Your task to perform on an android device: allow cookies in the chrome app Image 0: 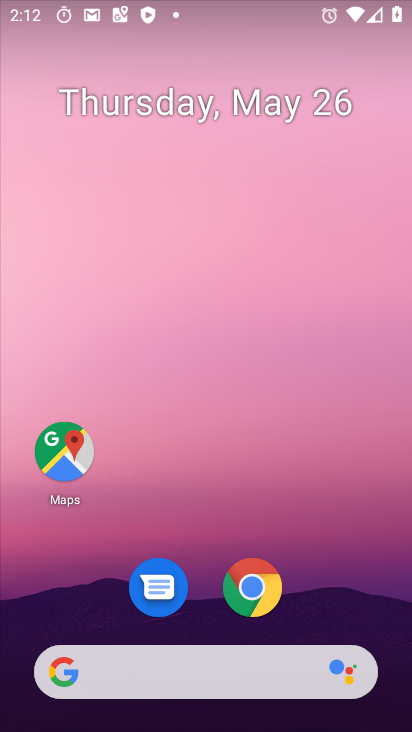
Step 0: drag from (231, 701) to (264, 152)
Your task to perform on an android device: allow cookies in the chrome app Image 1: 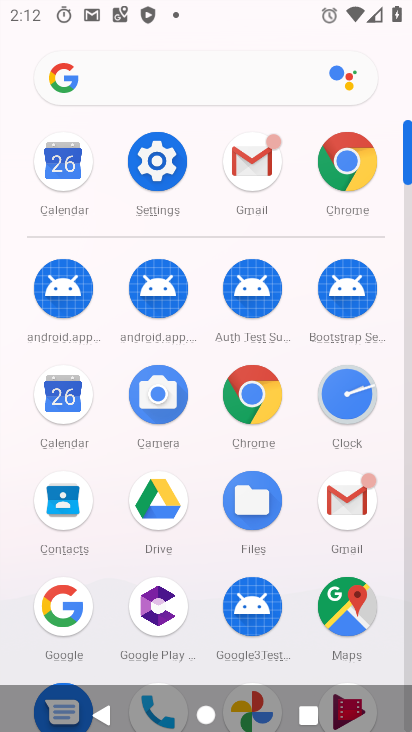
Step 1: click (324, 163)
Your task to perform on an android device: allow cookies in the chrome app Image 2: 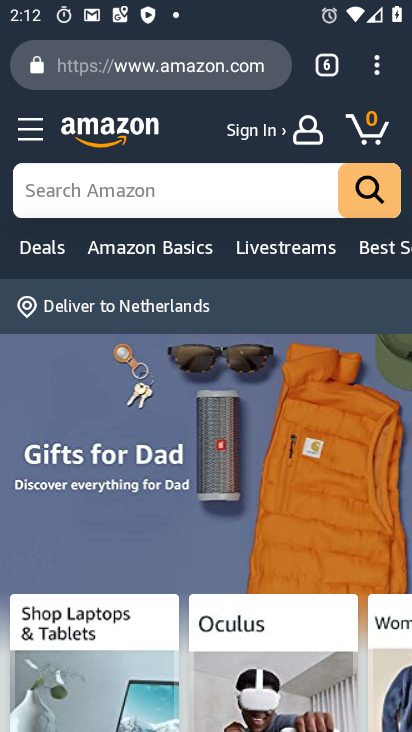
Step 2: click (375, 75)
Your task to perform on an android device: allow cookies in the chrome app Image 3: 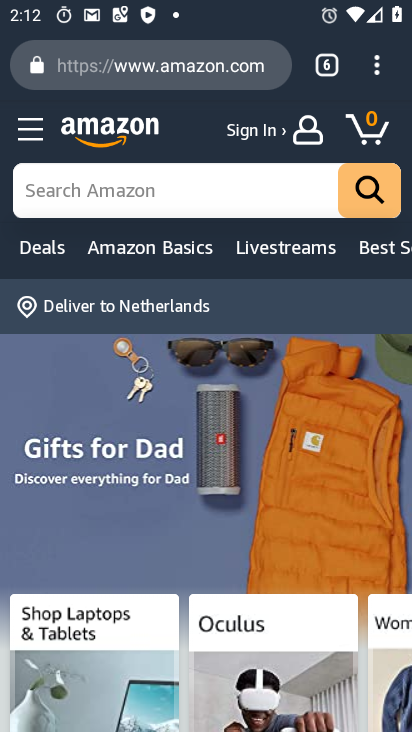
Step 3: click (373, 65)
Your task to perform on an android device: allow cookies in the chrome app Image 4: 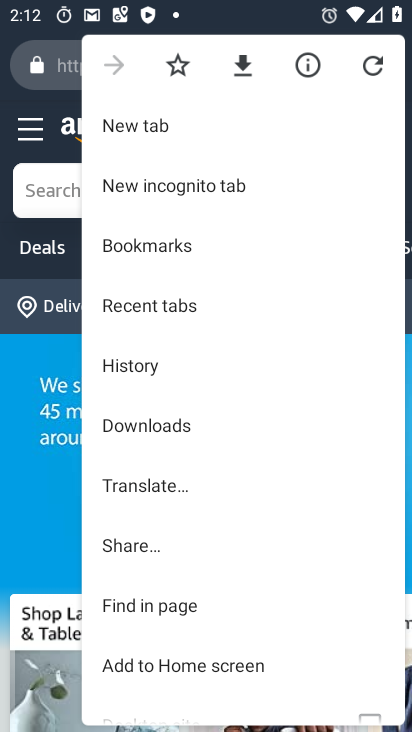
Step 4: drag from (199, 691) to (255, 474)
Your task to perform on an android device: allow cookies in the chrome app Image 5: 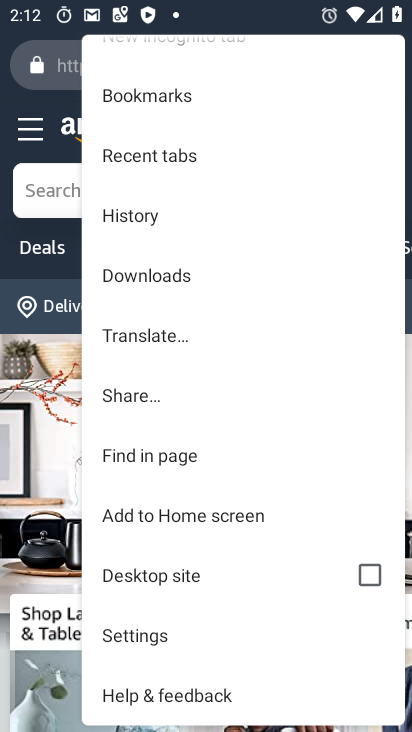
Step 5: click (153, 628)
Your task to perform on an android device: allow cookies in the chrome app Image 6: 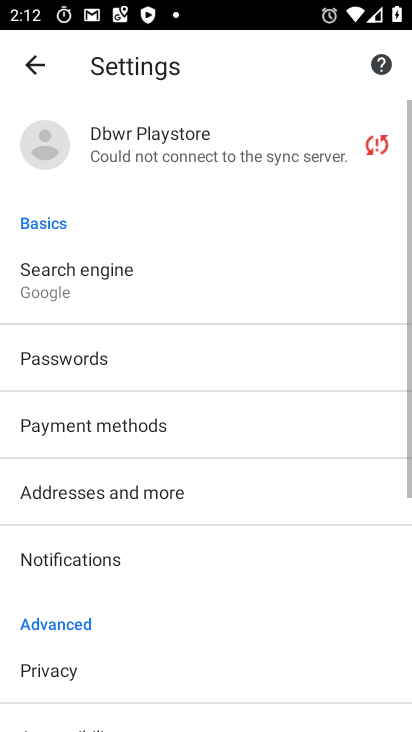
Step 6: drag from (132, 641) to (188, 269)
Your task to perform on an android device: allow cookies in the chrome app Image 7: 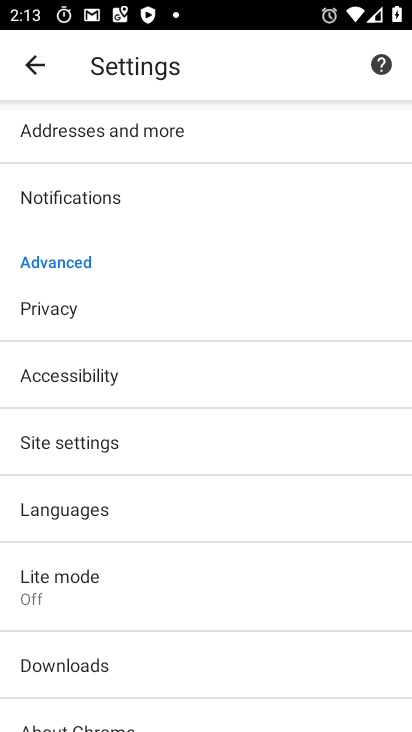
Step 7: click (91, 441)
Your task to perform on an android device: allow cookies in the chrome app Image 8: 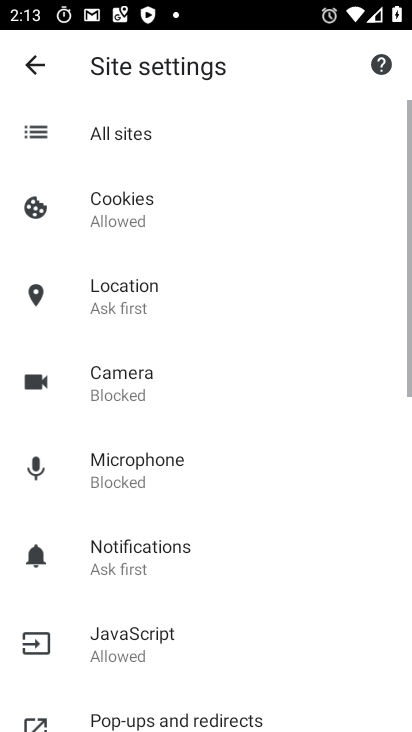
Step 8: click (106, 217)
Your task to perform on an android device: allow cookies in the chrome app Image 9: 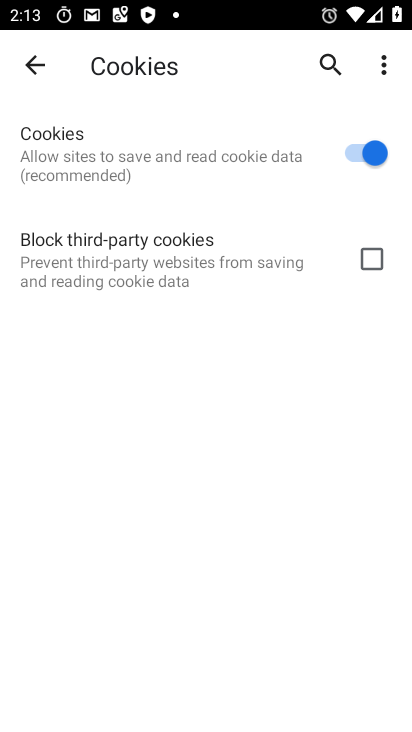
Step 9: click (355, 142)
Your task to perform on an android device: allow cookies in the chrome app Image 10: 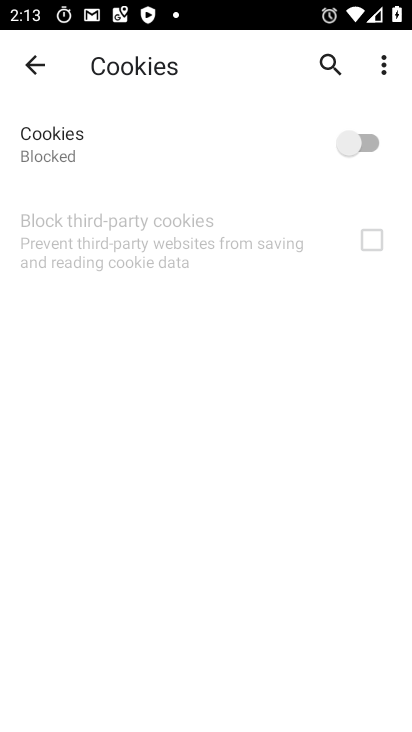
Step 10: click (353, 151)
Your task to perform on an android device: allow cookies in the chrome app Image 11: 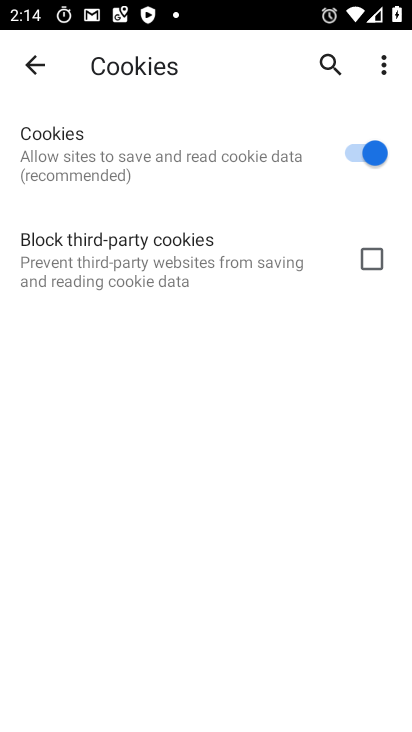
Step 11: task complete